Your task to perform on an android device: toggle javascript in the chrome app Image 0: 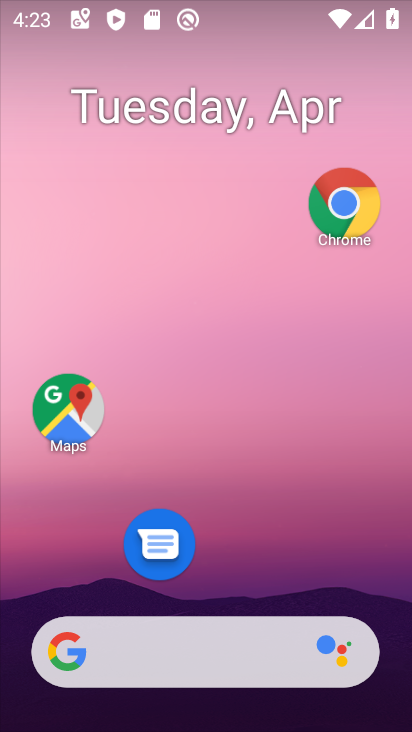
Step 0: click (355, 202)
Your task to perform on an android device: toggle javascript in the chrome app Image 1: 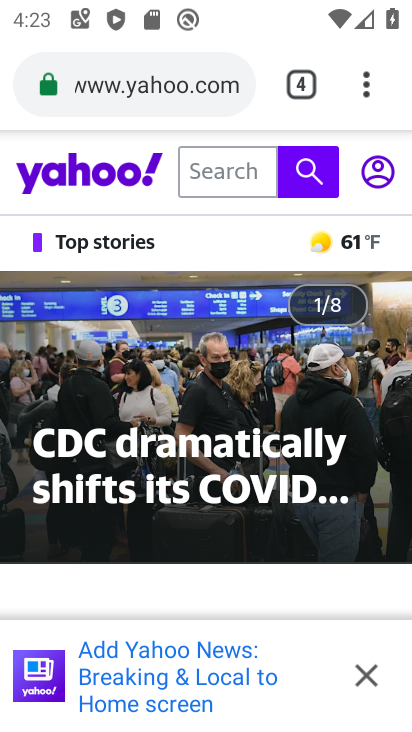
Step 1: click (371, 93)
Your task to perform on an android device: toggle javascript in the chrome app Image 2: 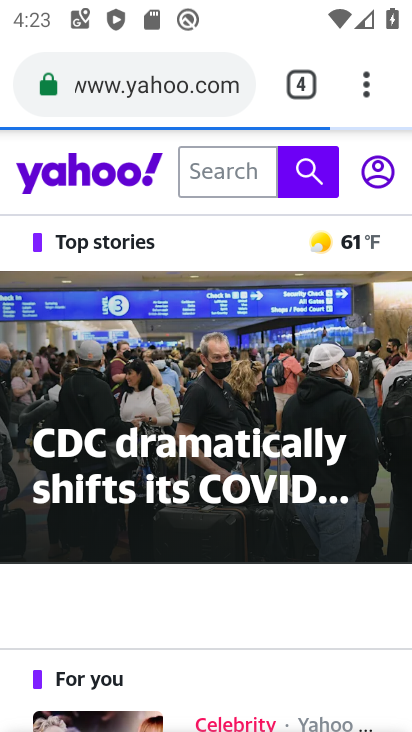
Step 2: click (365, 87)
Your task to perform on an android device: toggle javascript in the chrome app Image 3: 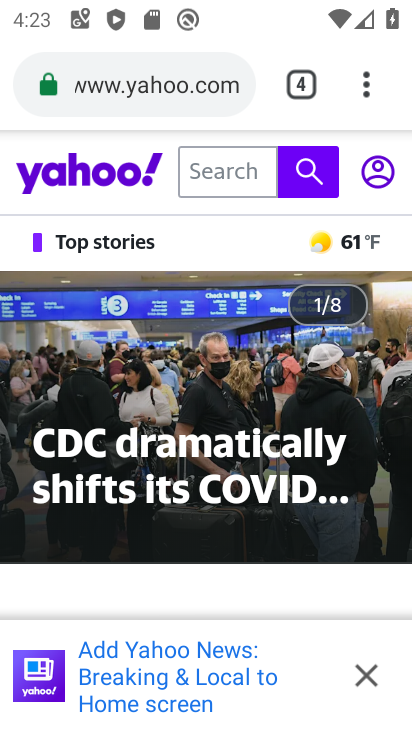
Step 3: click (370, 86)
Your task to perform on an android device: toggle javascript in the chrome app Image 4: 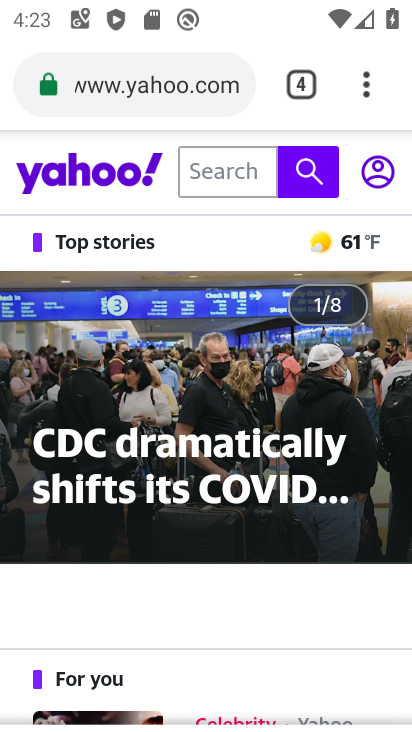
Step 4: click (356, 85)
Your task to perform on an android device: toggle javascript in the chrome app Image 5: 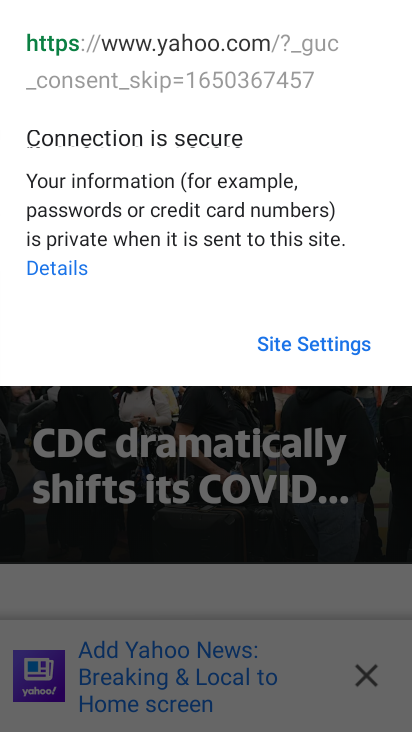
Step 5: click (298, 433)
Your task to perform on an android device: toggle javascript in the chrome app Image 6: 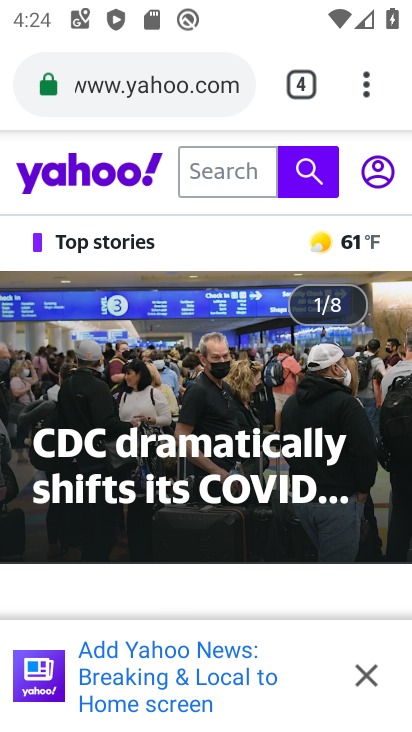
Step 6: click (370, 89)
Your task to perform on an android device: toggle javascript in the chrome app Image 7: 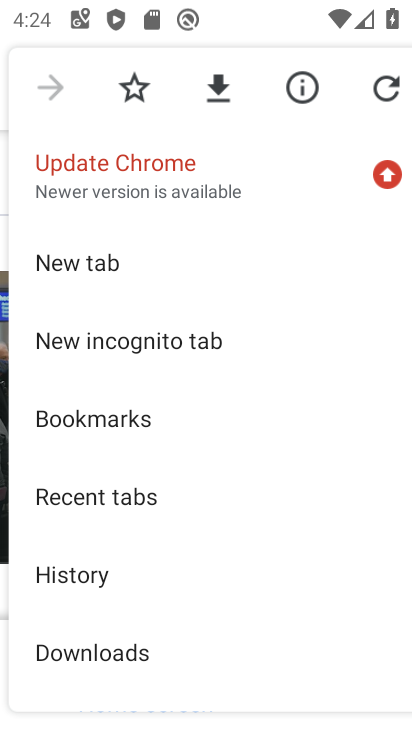
Step 7: drag from (133, 579) to (198, 70)
Your task to perform on an android device: toggle javascript in the chrome app Image 8: 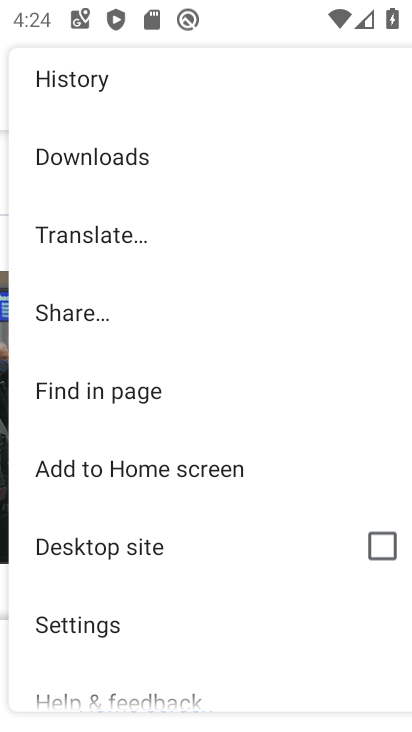
Step 8: click (81, 623)
Your task to perform on an android device: toggle javascript in the chrome app Image 9: 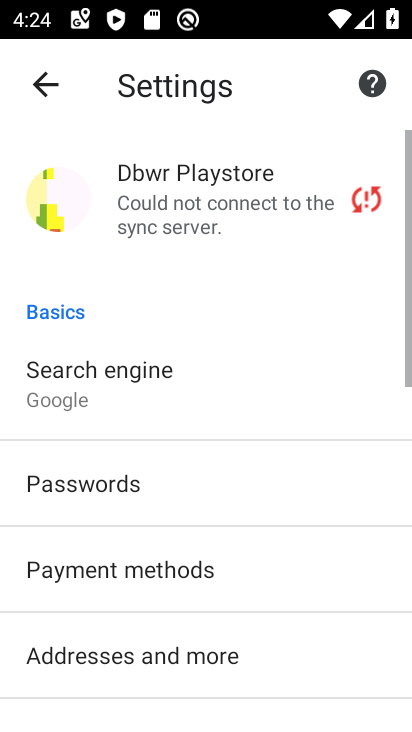
Step 9: drag from (184, 551) to (246, 122)
Your task to perform on an android device: toggle javascript in the chrome app Image 10: 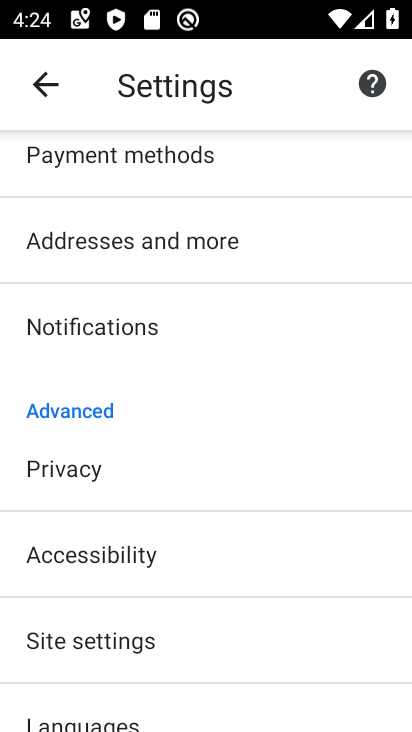
Step 10: drag from (104, 630) to (143, 369)
Your task to perform on an android device: toggle javascript in the chrome app Image 11: 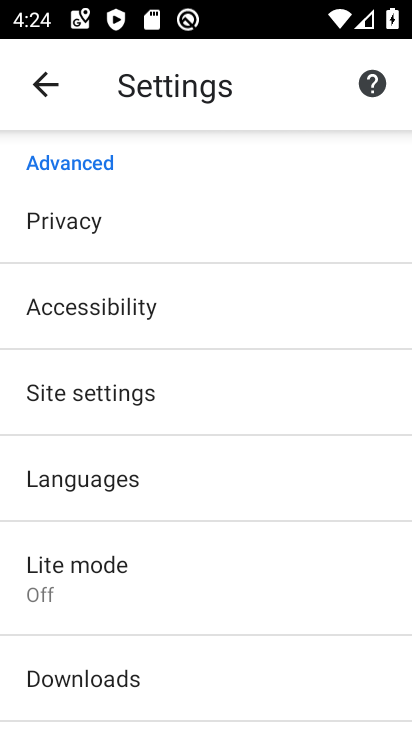
Step 11: click (131, 390)
Your task to perform on an android device: toggle javascript in the chrome app Image 12: 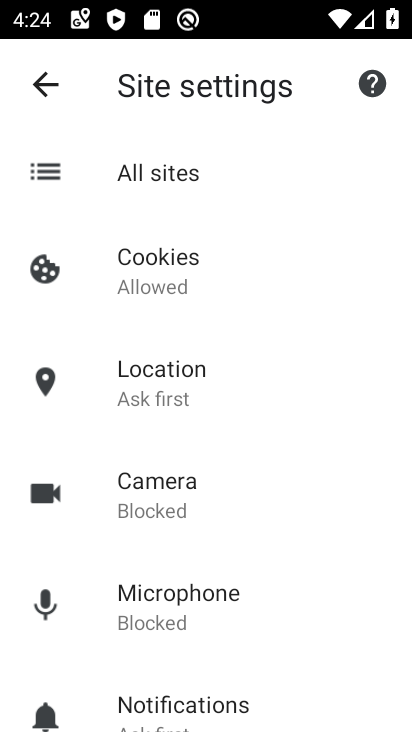
Step 12: drag from (168, 601) to (254, 79)
Your task to perform on an android device: toggle javascript in the chrome app Image 13: 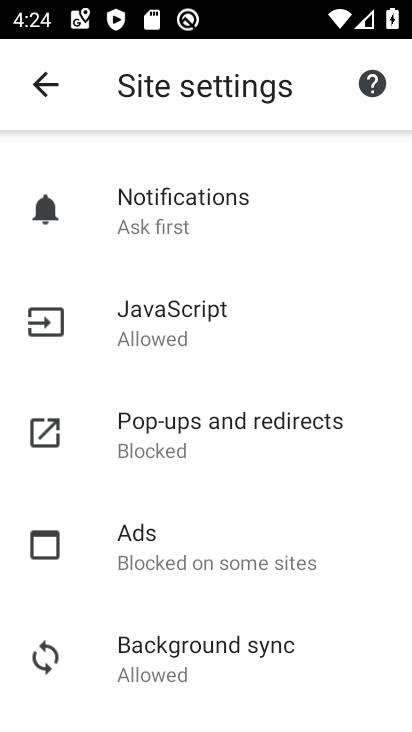
Step 13: click (167, 326)
Your task to perform on an android device: toggle javascript in the chrome app Image 14: 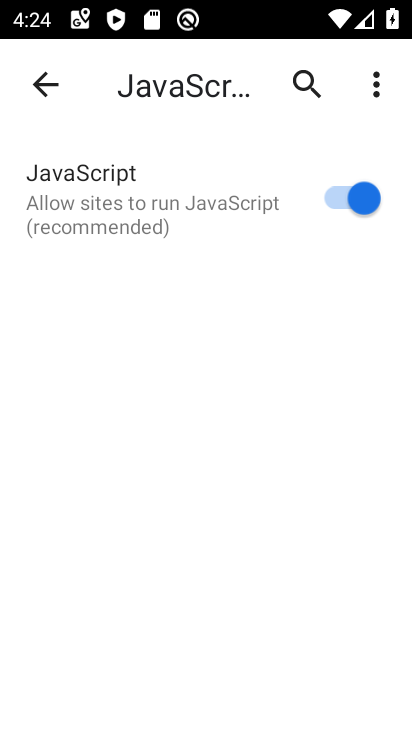
Step 14: click (322, 198)
Your task to perform on an android device: toggle javascript in the chrome app Image 15: 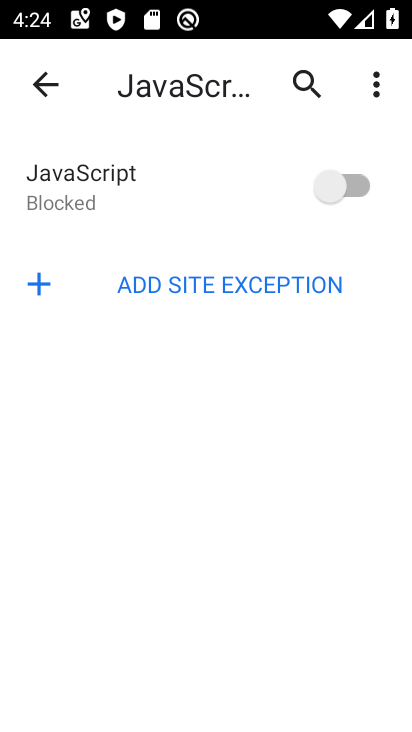
Step 15: task complete